Your task to perform on an android device: turn on javascript in the chrome app Image 0: 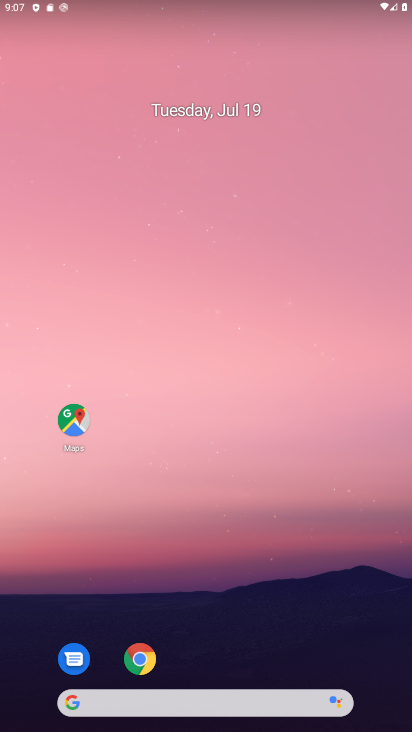
Step 0: click (142, 656)
Your task to perform on an android device: turn on javascript in the chrome app Image 1: 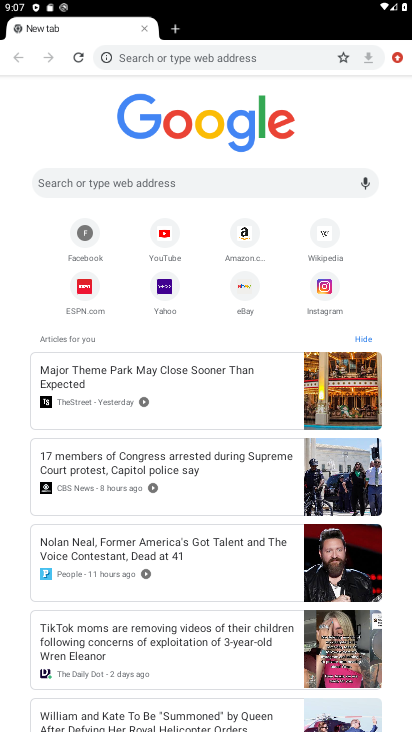
Step 1: drag from (396, 52) to (327, 292)
Your task to perform on an android device: turn on javascript in the chrome app Image 2: 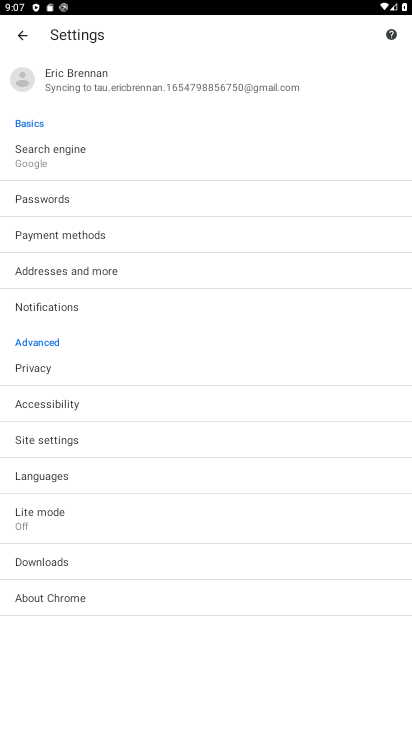
Step 2: click (113, 448)
Your task to perform on an android device: turn on javascript in the chrome app Image 3: 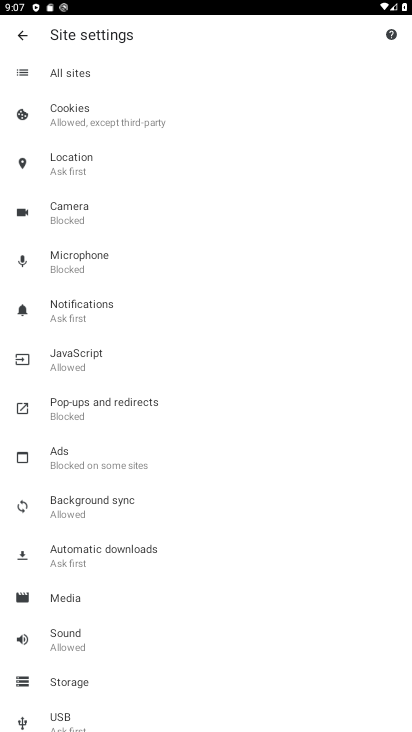
Step 3: click (130, 371)
Your task to perform on an android device: turn on javascript in the chrome app Image 4: 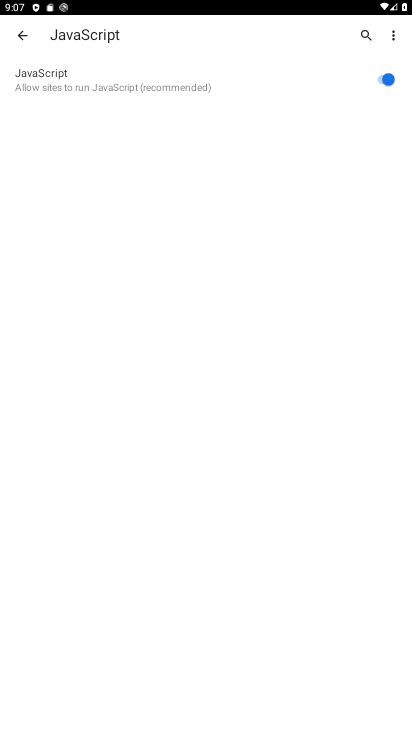
Step 4: task complete